Your task to perform on an android device: toggle priority inbox in the gmail app Image 0: 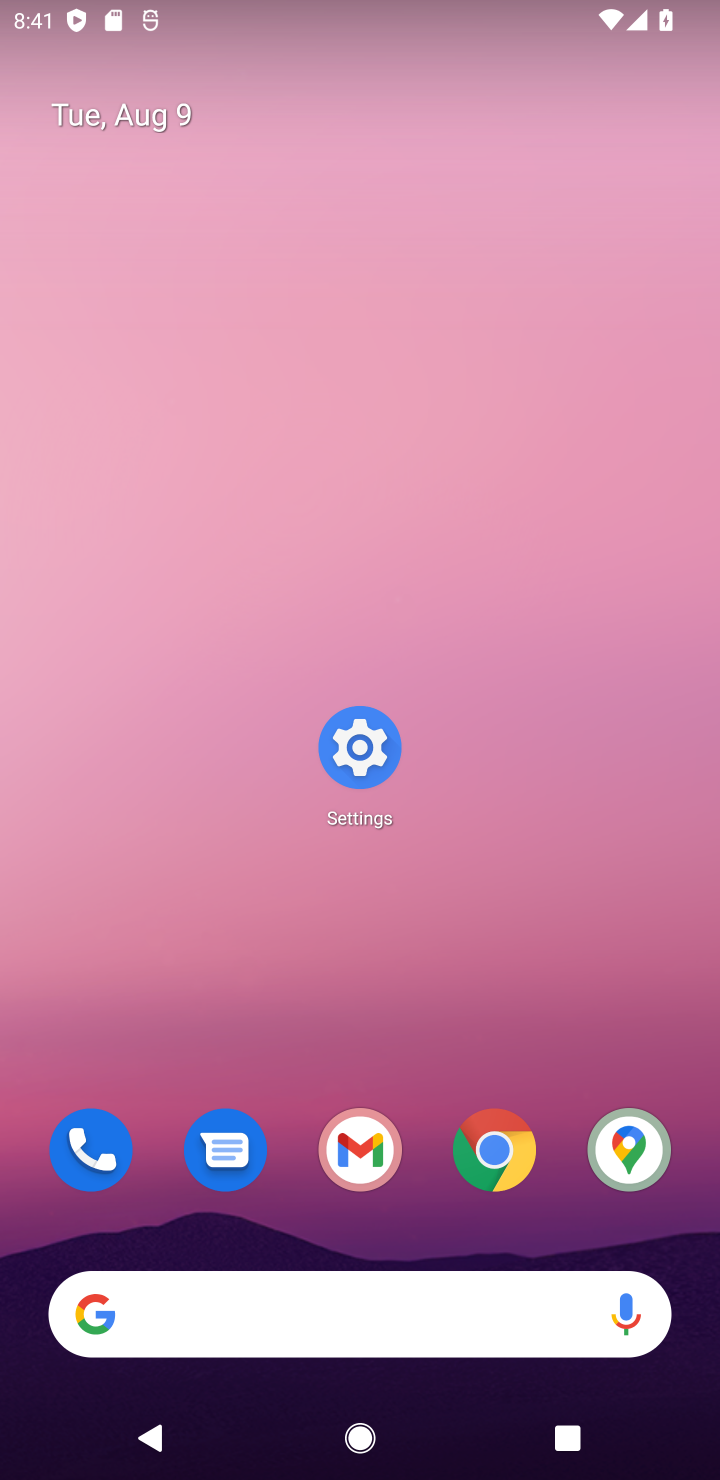
Step 0: click (376, 1144)
Your task to perform on an android device: toggle priority inbox in the gmail app Image 1: 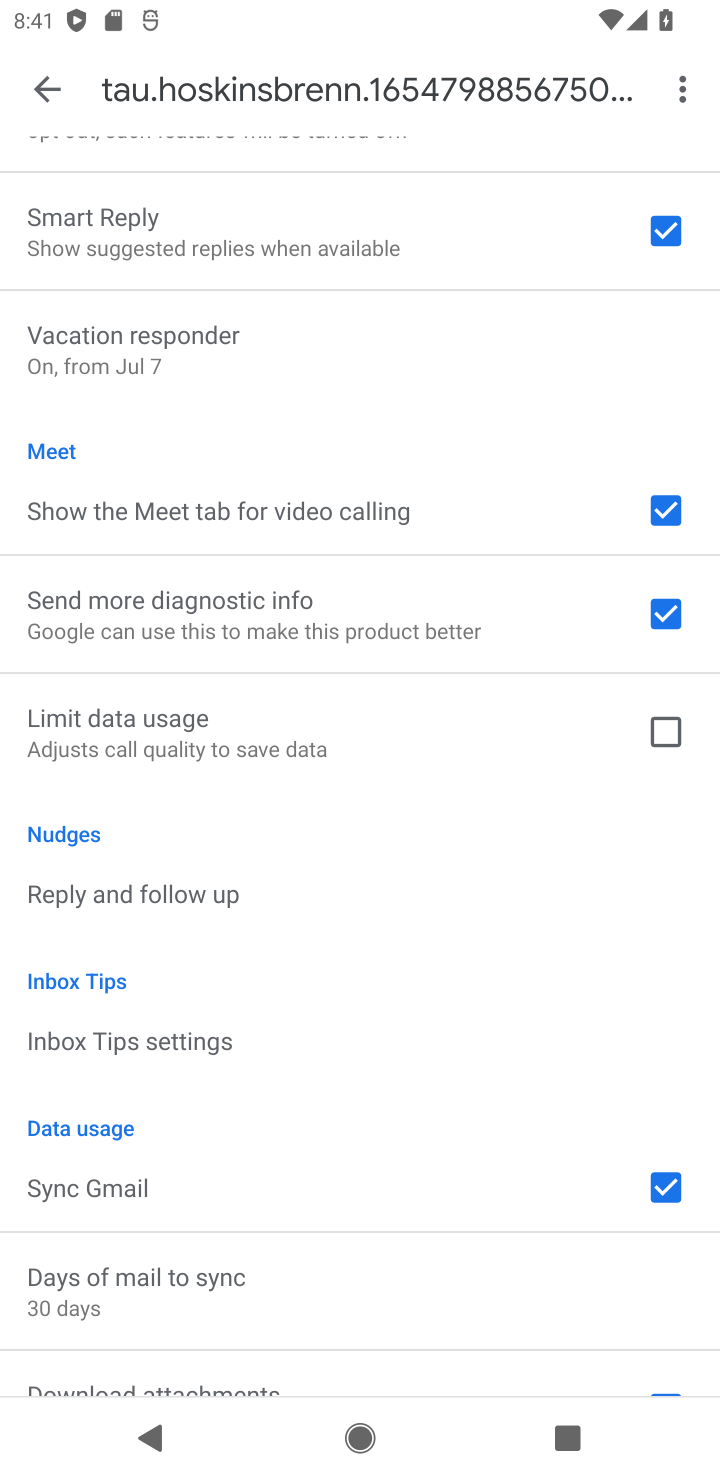
Step 1: drag from (368, 336) to (419, 1339)
Your task to perform on an android device: toggle priority inbox in the gmail app Image 2: 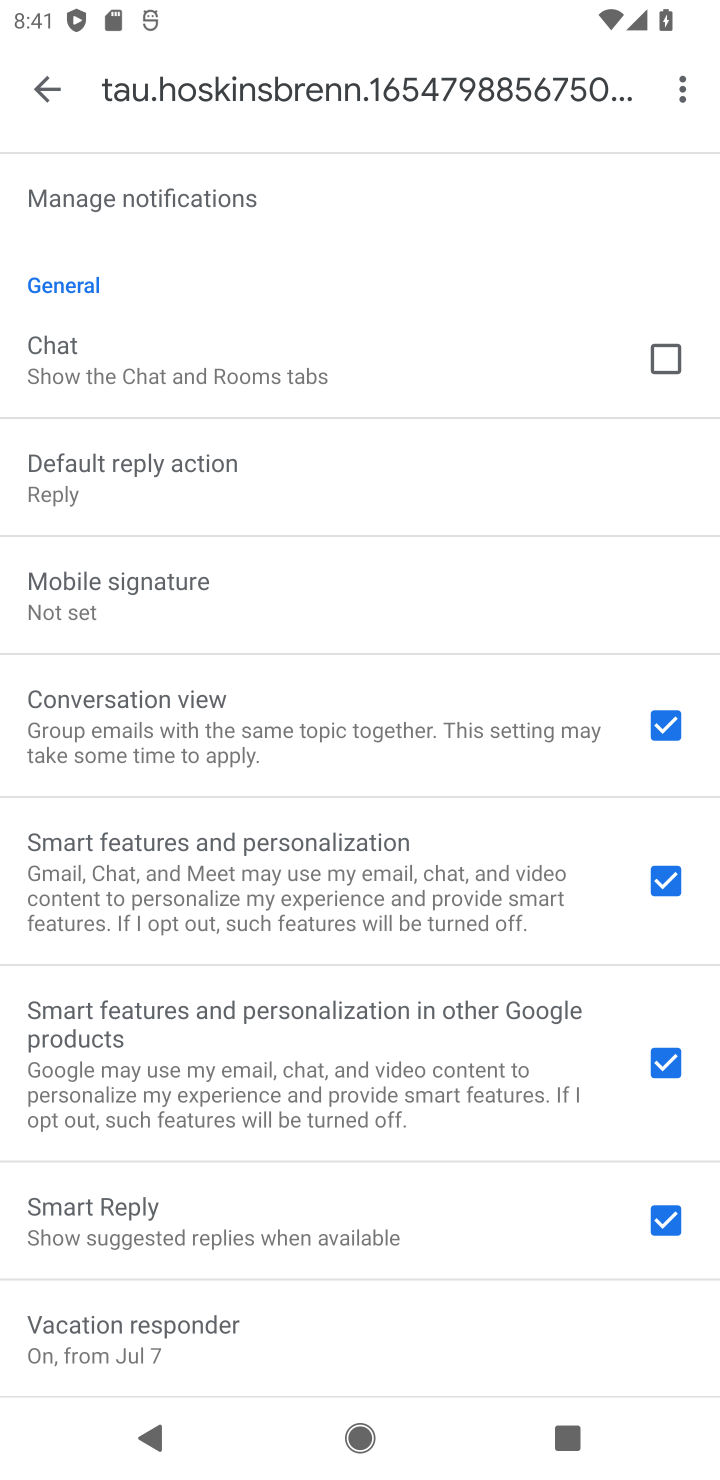
Step 2: drag from (431, 278) to (405, 1037)
Your task to perform on an android device: toggle priority inbox in the gmail app Image 3: 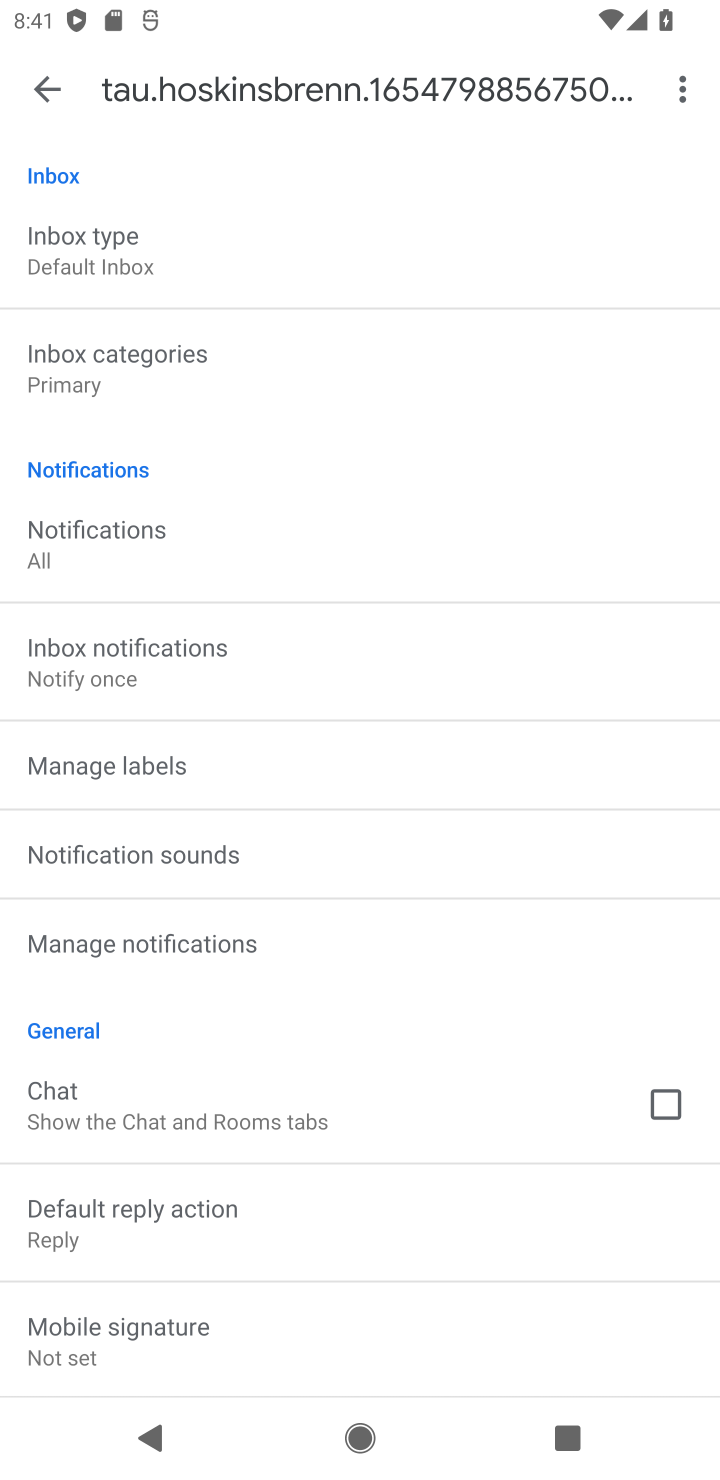
Step 3: click (62, 270)
Your task to perform on an android device: toggle priority inbox in the gmail app Image 4: 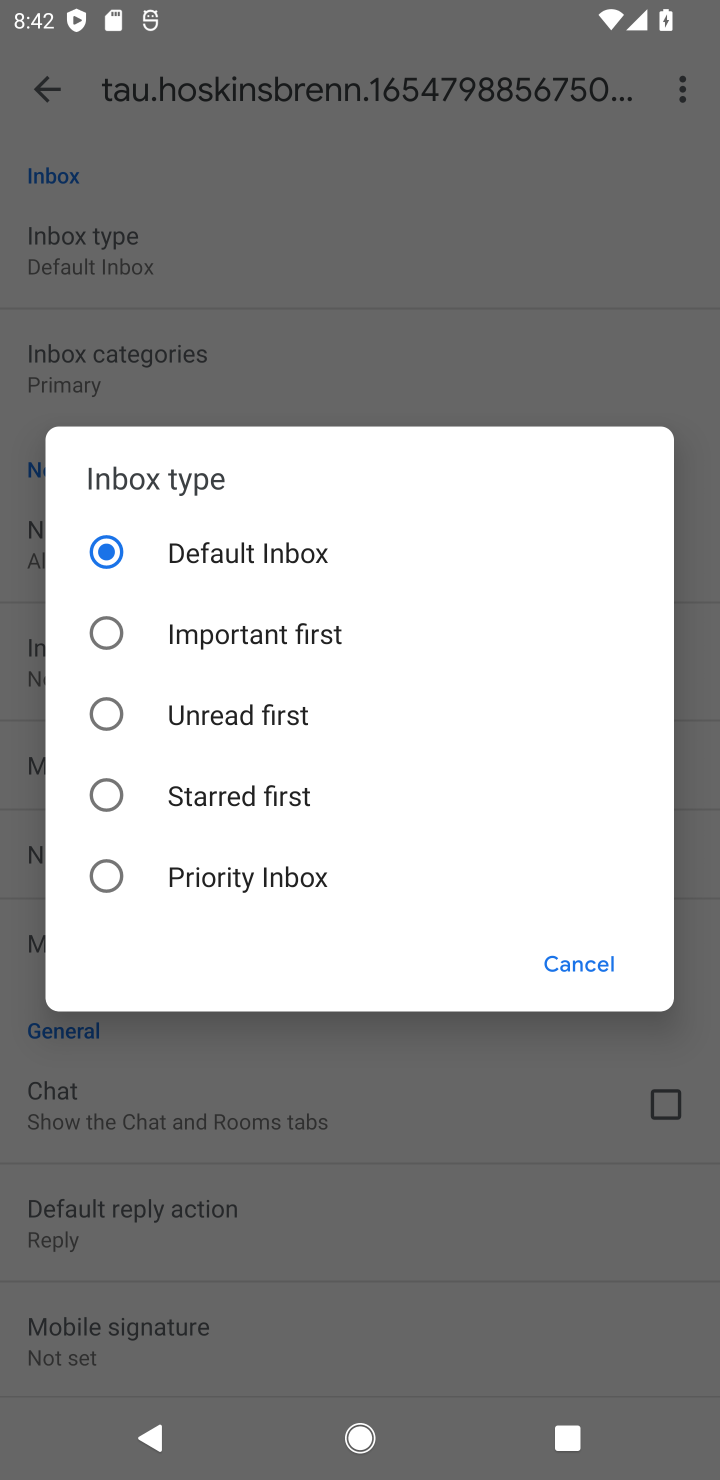
Step 4: click (99, 865)
Your task to perform on an android device: toggle priority inbox in the gmail app Image 5: 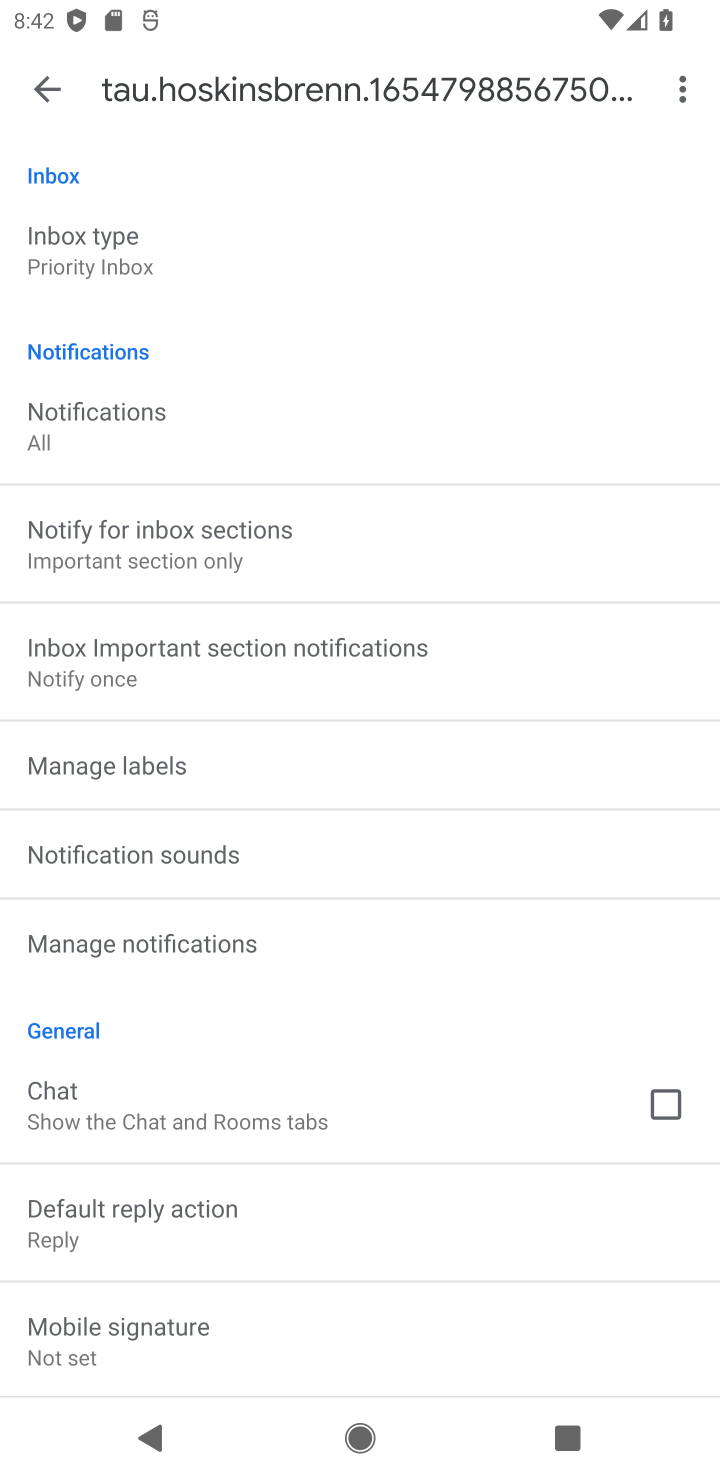
Step 5: task complete